Your task to perform on an android device: turn on improve location accuracy Image 0: 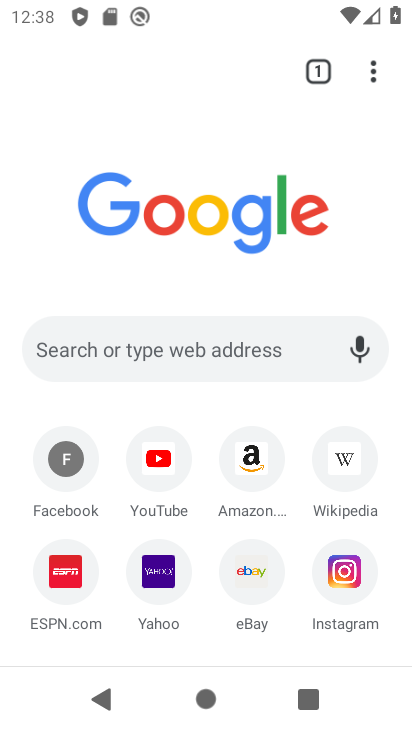
Step 0: press home button
Your task to perform on an android device: turn on improve location accuracy Image 1: 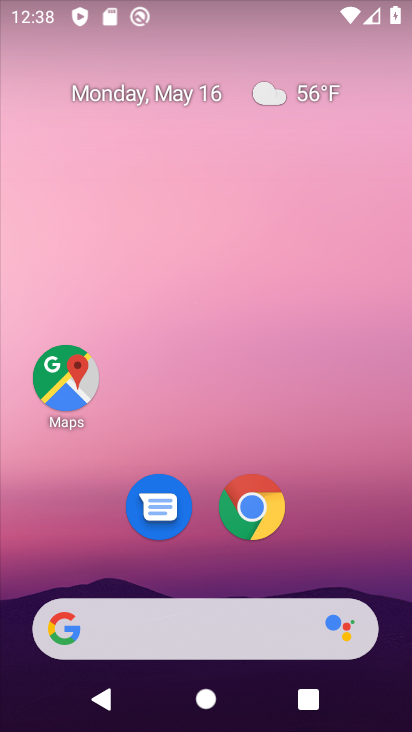
Step 1: drag from (230, 589) to (209, 151)
Your task to perform on an android device: turn on improve location accuracy Image 2: 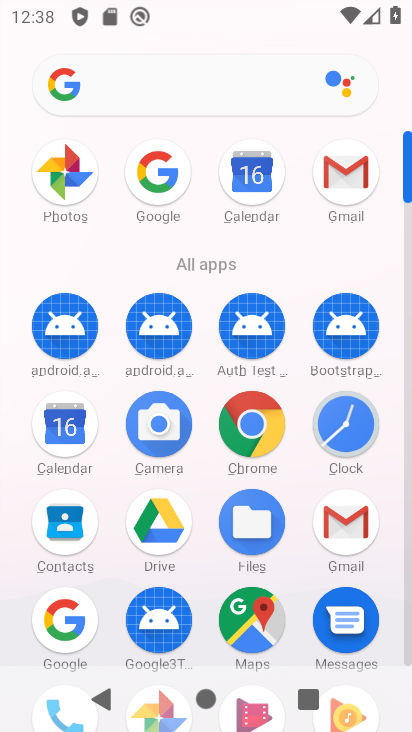
Step 2: drag from (243, 463) to (289, 146)
Your task to perform on an android device: turn on improve location accuracy Image 3: 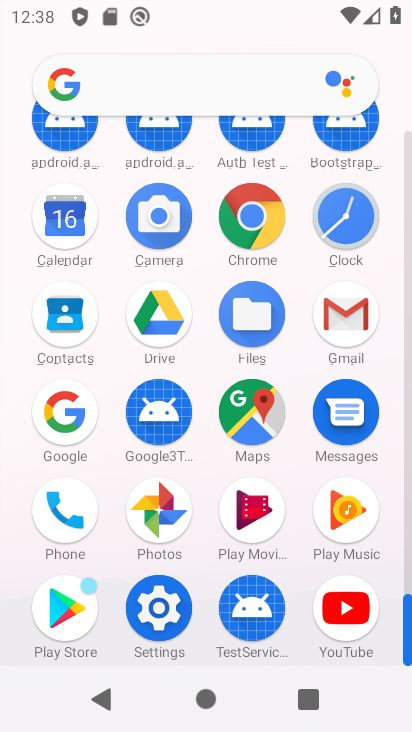
Step 3: click (186, 598)
Your task to perform on an android device: turn on improve location accuracy Image 4: 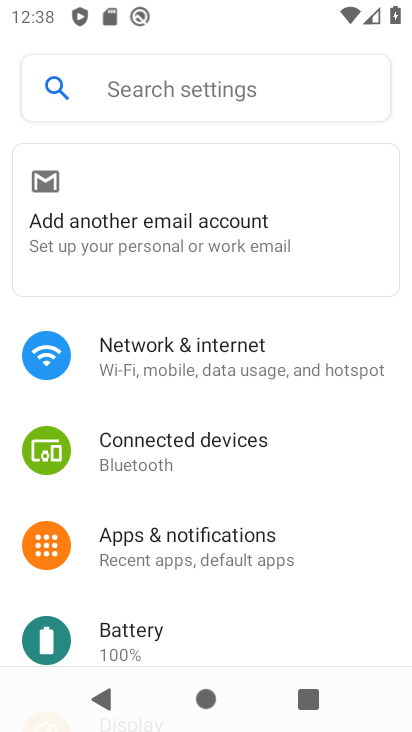
Step 4: drag from (198, 530) to (281, 306)
Your task to perform on an android device: turn on improve location accuracy Image 5: 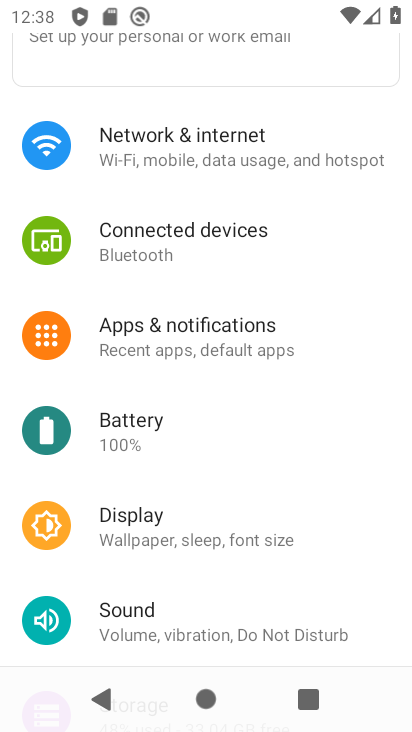
Step 5: drag from (269, 512) to (306, 279)
Your task to perform on an android device: turn on improve location accuracy Image 6: 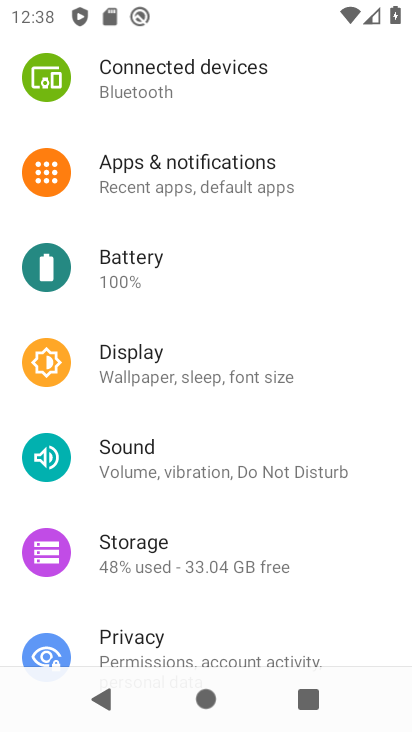
Step 6: drag from (236, 519) to (281, 196)
Your task to perform on an android device: turn on improve location accuracy Image 7: 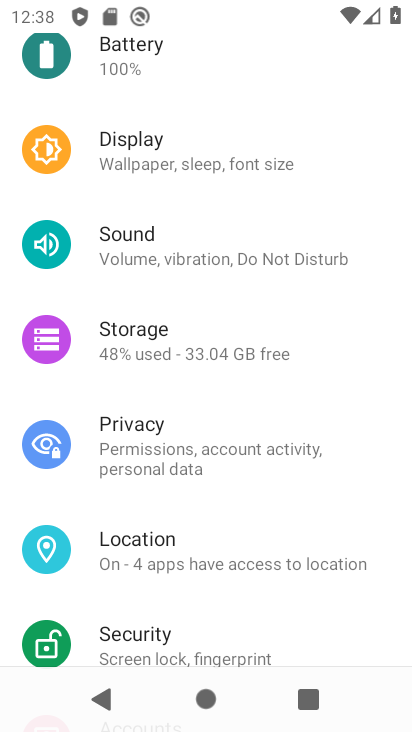
Step 7: click (196, 533)
Your task to perform on an android device: turn on improve location accuracy Image 8: 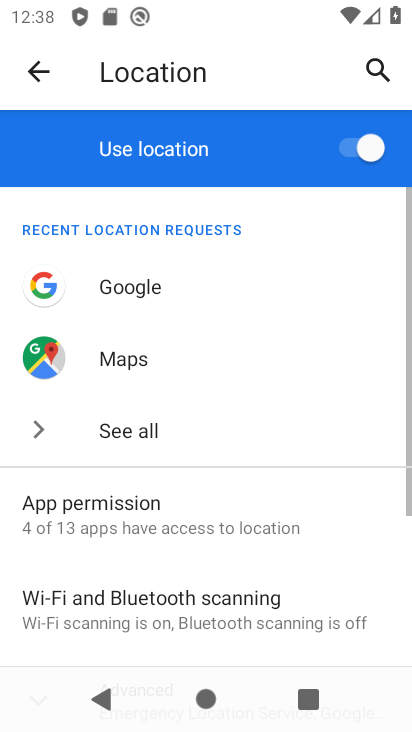
Step 8: drag from (171, 560) to (240, 335)
Your task to perform on an android device: turn on improve location accuracy Image 9: 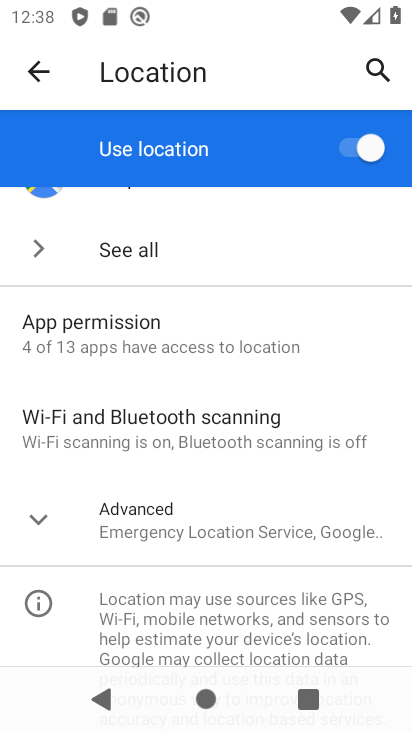
Step 9: click (155, 504)
Your task to perform on an android device: turn on improve location accuracy Image 10: 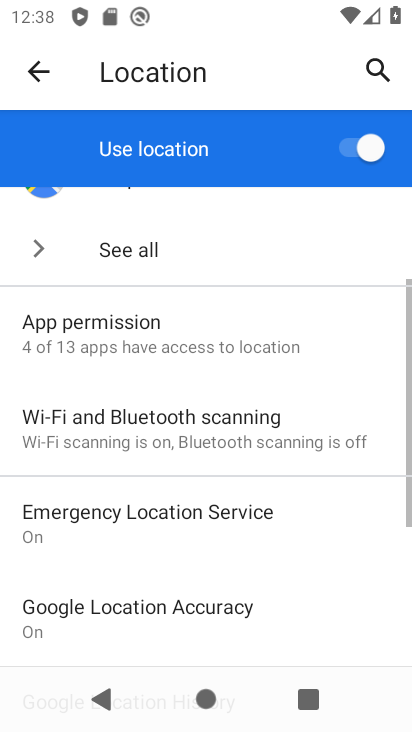
Step 10: drag from (181, 583) to (228, 342)
Your task to perform on an android device: turn on improve location accuracy Image 11: 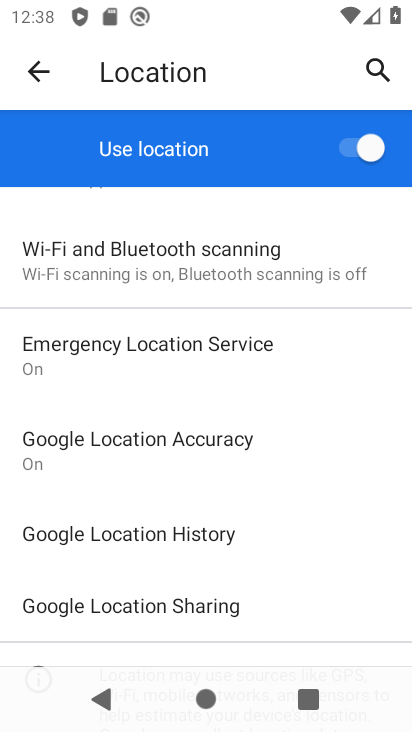
Step 11: click (184, 446)
Your task to perform on an android device: turn on improve location accuracy Image 12: 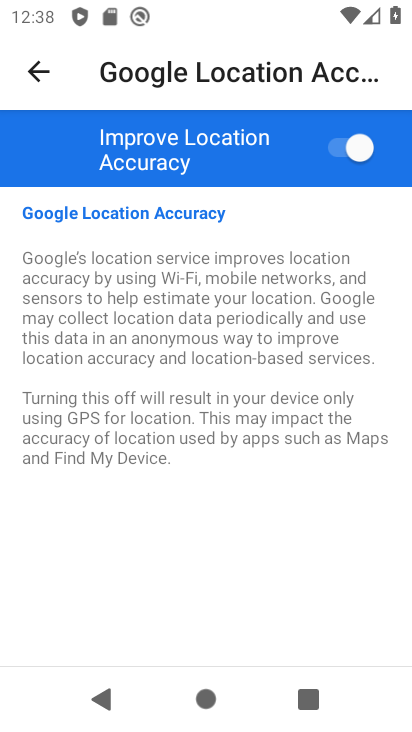
Step 12: task complete